Your task to perform on an android device: Open Youtube and go to "Your channel" Image 0: 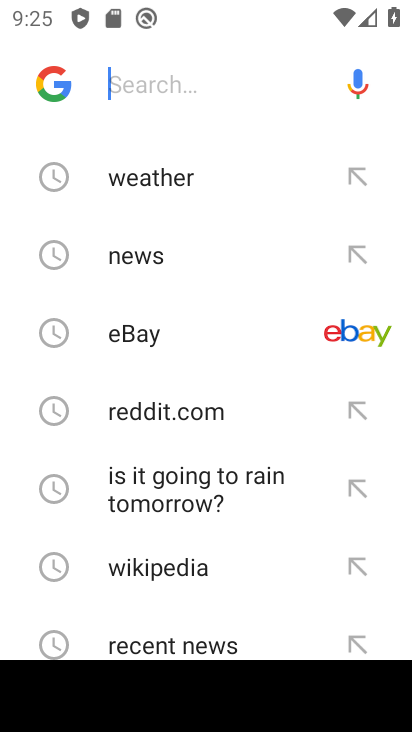
Step 0: press home button
Your task to perform on an android device: Open Youtube and go to "Your channel" Image 1: 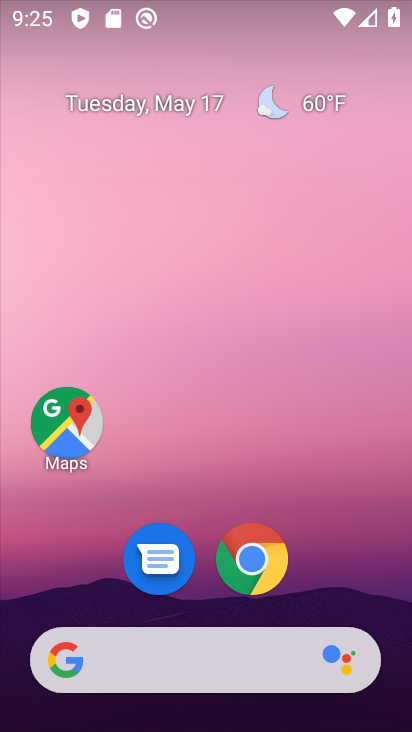
Step 1: drag from (343, 518) to (346, 150)
Your task to perform on an android device: Open Youtube and go to "Your channel" Image 2: 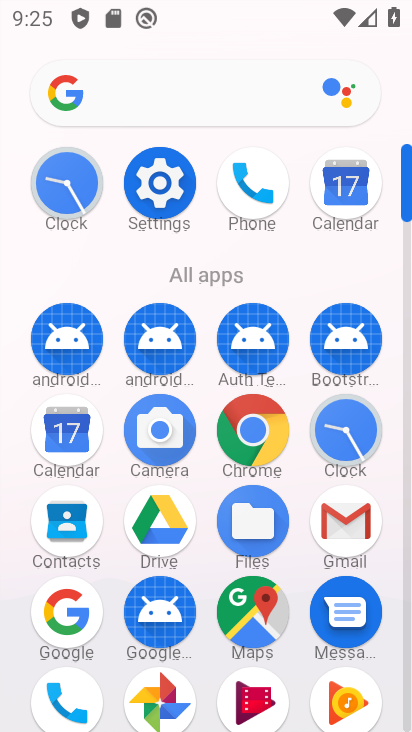
Step 2: drag from (299, 574) to (363, 322)
Your task to perform on an android device: Open Youtube and go to "Your channel" Image 3: 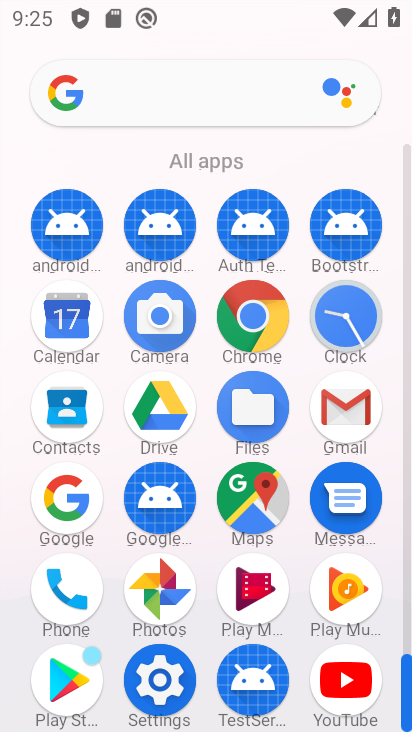
Step 3: click (348, 685)
Your task to perform on an android device: Open Youtube and go to "Your channel" Image 4: 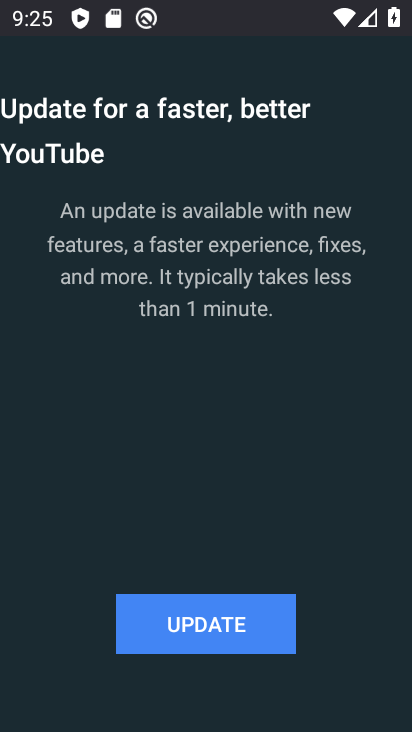
Step 4: click (273, 623)
Your task to perform on an android device: Open Youtube and go to "Your channel" Image 5: 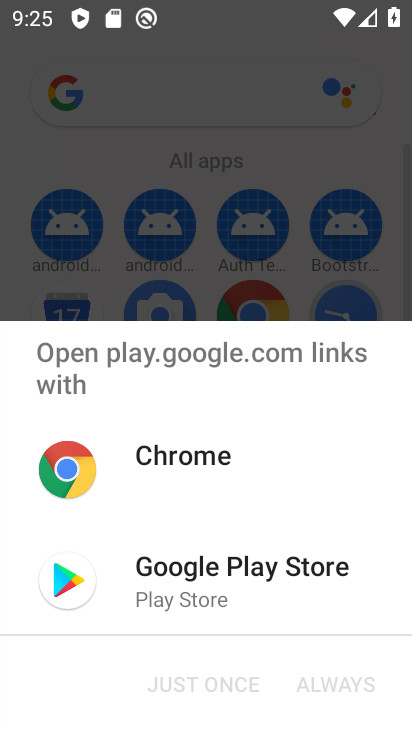
Step 5: click (172, 582)
Your task to perform on an android device: Open Youtube and go to "Your channel" Image 6: 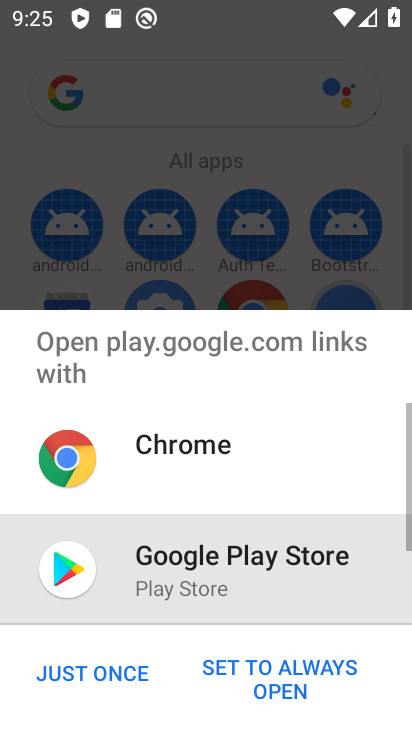
Step 6: click (134, 665)
Your task to perform on an android device: Open Youtube and go to "Your channel" Image 7: 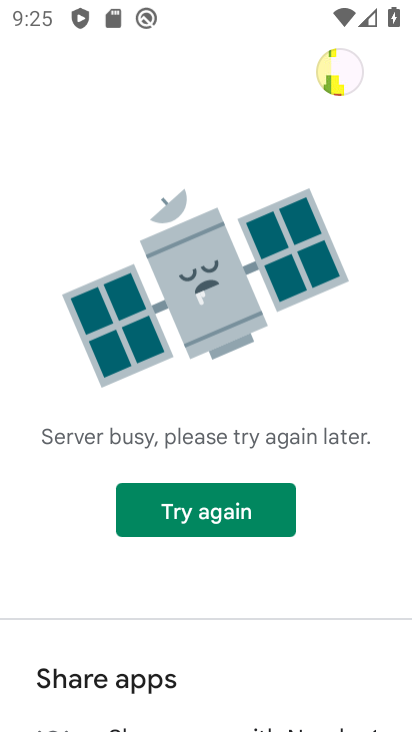
Step 7: task complete